Your task to perform on an android device: find photos in the google photos app Image 0: 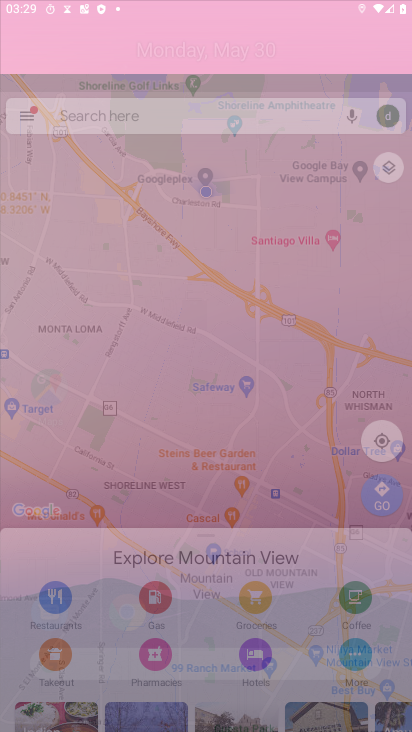
Step 0: press home button
Your task to perform on an android device: find photos in the google photos app Image 1: 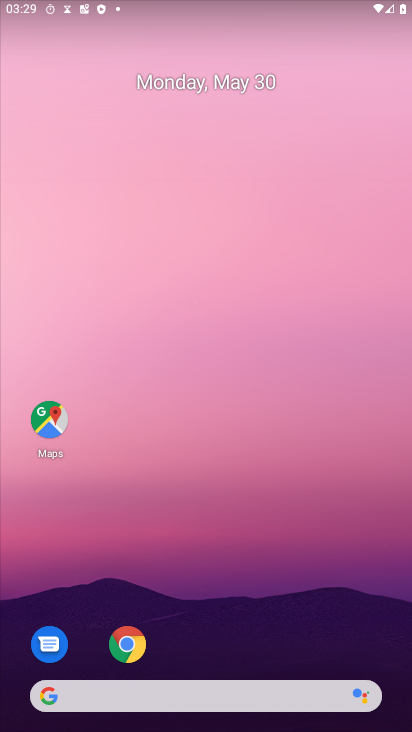
Step 1: drag from (247, 647) to (246, 134)
Your task to perform on an android device: find photos in the google photos app Image 2: 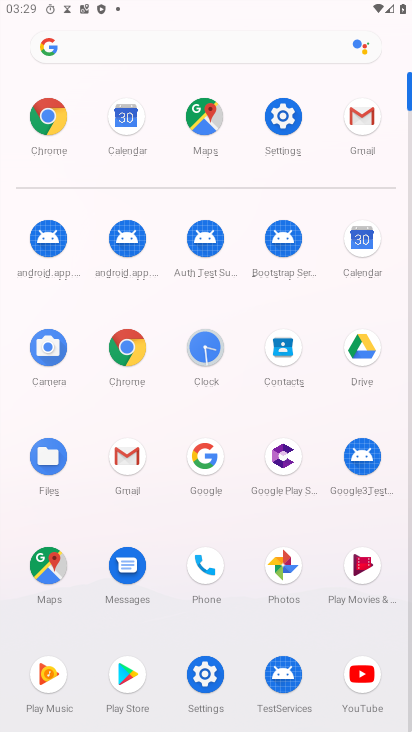
Step 2: click (282, 563)
Your task to perform on an android device: find photos in the google photos app Image 3: 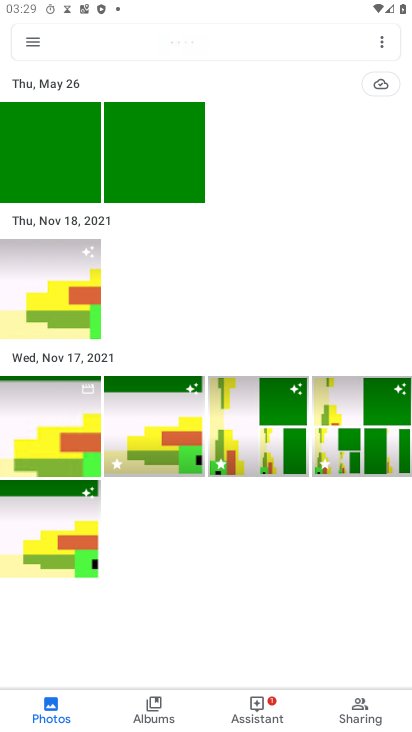
Step 3: click (51, 704)
Your task to perform on an android device: find photos in the google photos app Image 4: 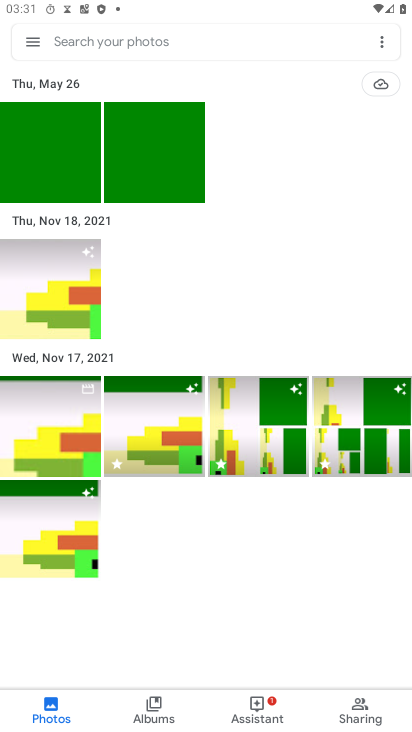
Step 4: task complete